Your task to perform on an android device: Clear the shopping cart on ebay.com. Add alienware area 51 to the cart on ebay.com, then select checkout. Image 0: 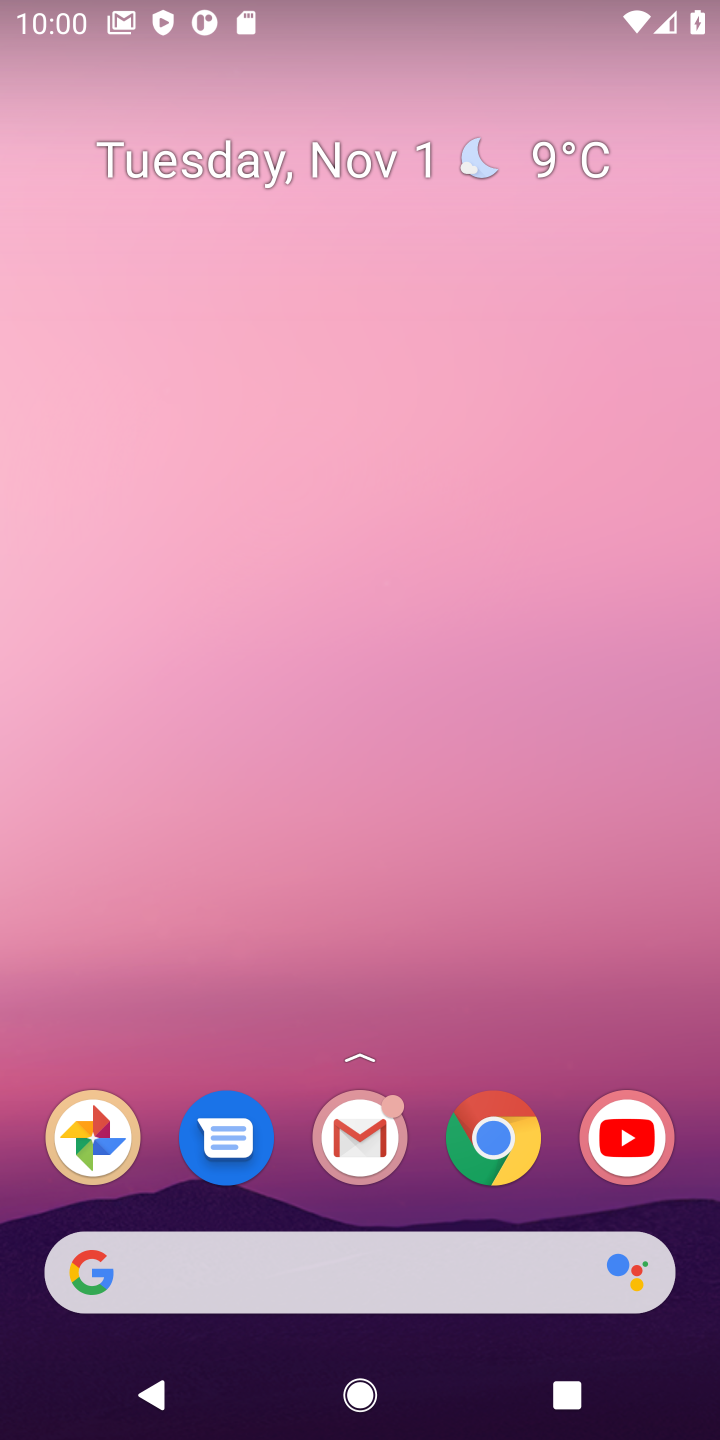
Step 0: click (496, 1143)
Your task to perform on an android device: Clear the shopping cart on ebay.com. Add alienware area 51 to the cart on ebay.com, then select checkout. Image 1: 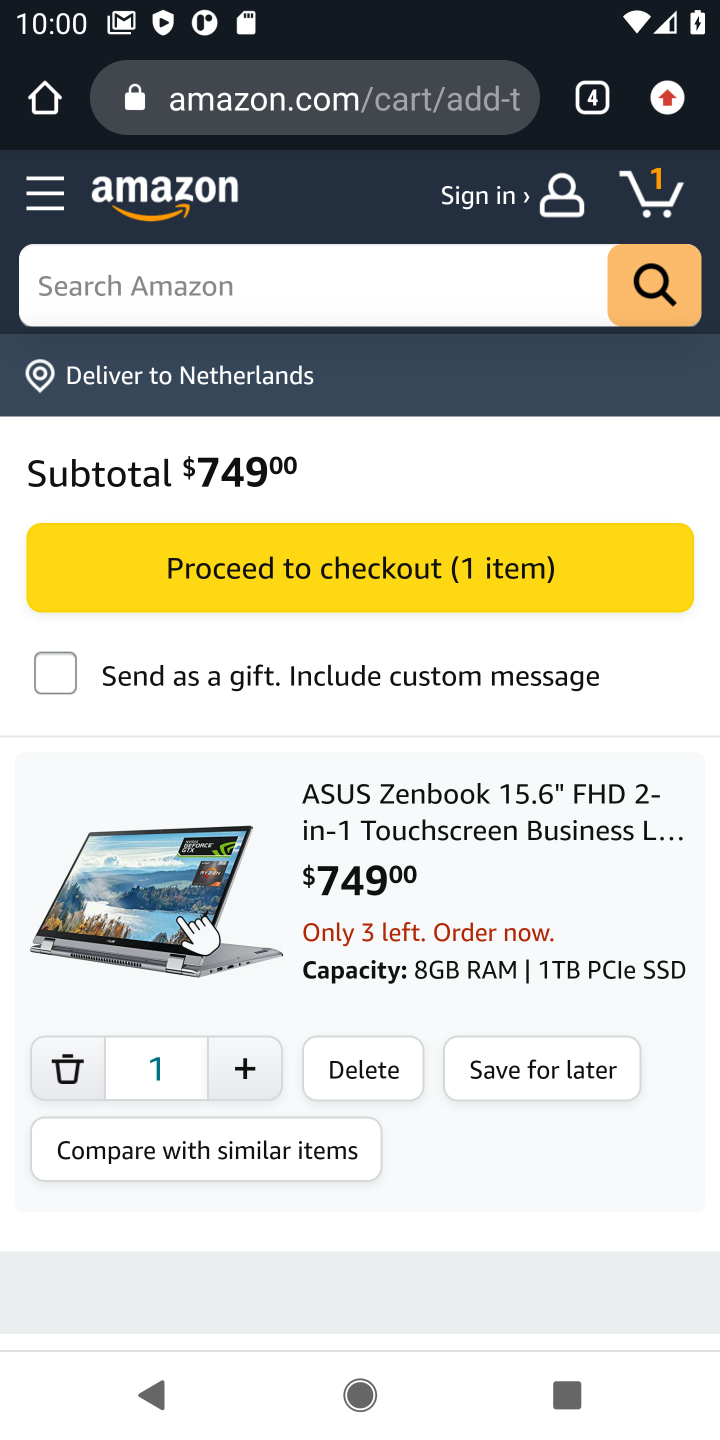
Step 1: click (336, 1071)
Your task to perform on an android device: Clear the shopping cart on ebay.com. Add alienware area 51 to the cart on ebay.com, then select checkout. Image 2: 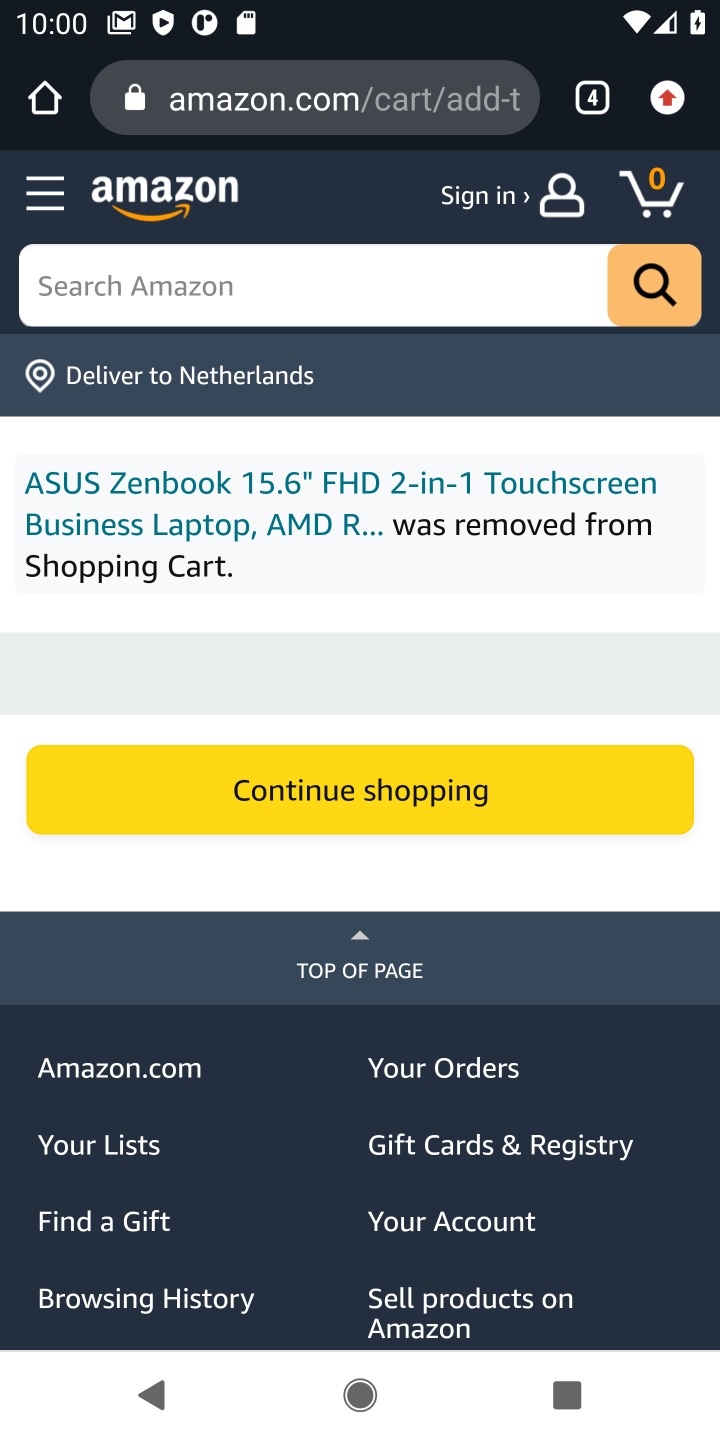
Step 2: click (382, 292)
Your task to perform on an android device: Clear the shopping cart on ebay.com. Add alienware area 51 to the cart on ebay.com, then select checkout. Image 3: 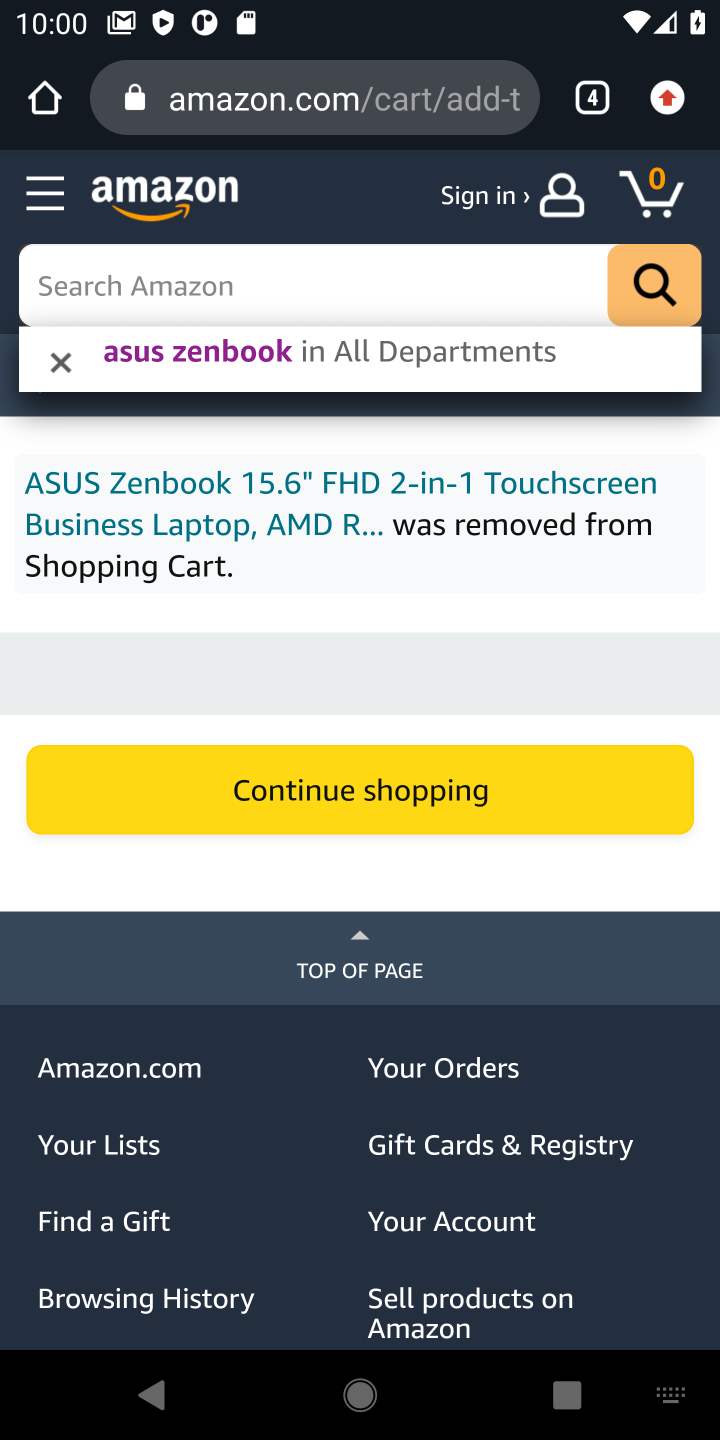
Step 3: type "alienware area 51"
Your task to perform on an android device: Clear the shopping cart on ebay.com. Add alienware area 51 to the cart on ebay.com, then select checkout. Image 4: 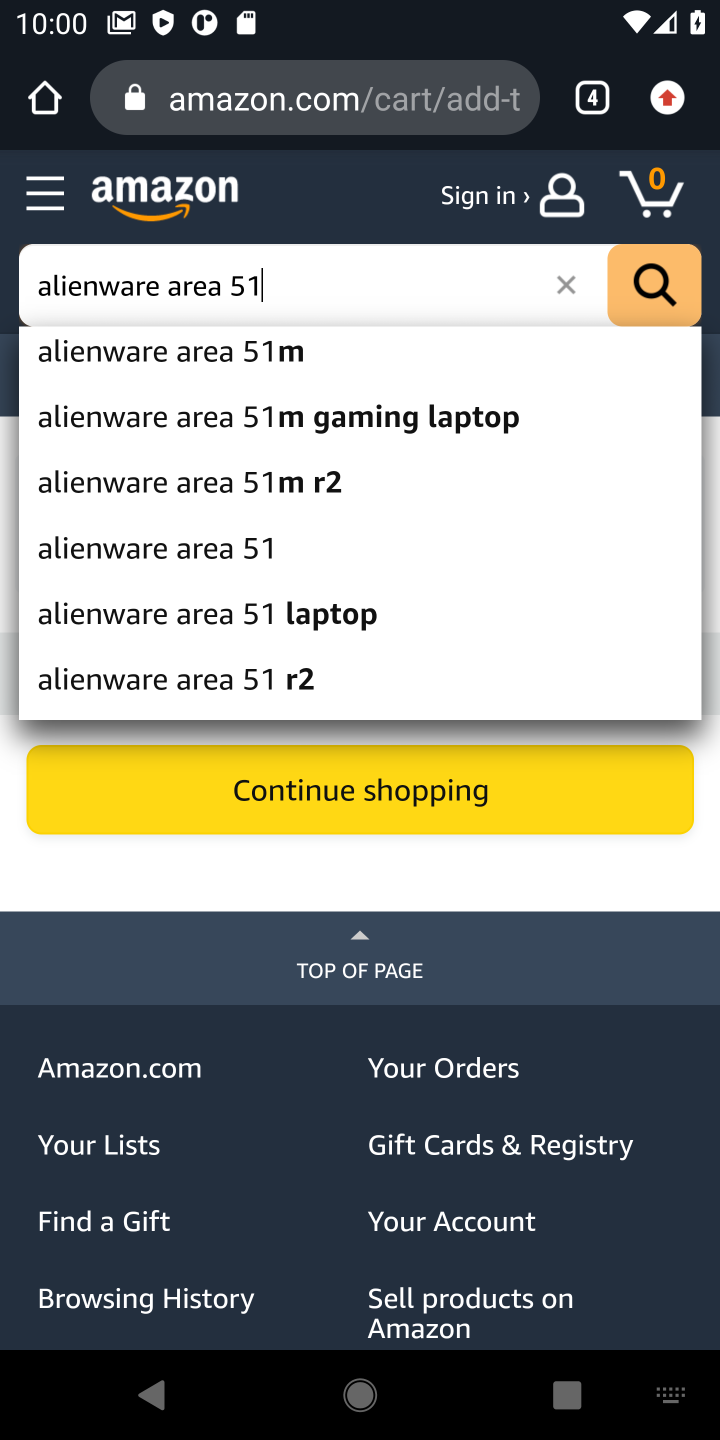
Step 4: click (249, 356)
Your task to perform on an android device: Clear the shopping cart on ebay.com. Add alienware area 51 to the cart on ebay.com, then select checkout. Image 5: 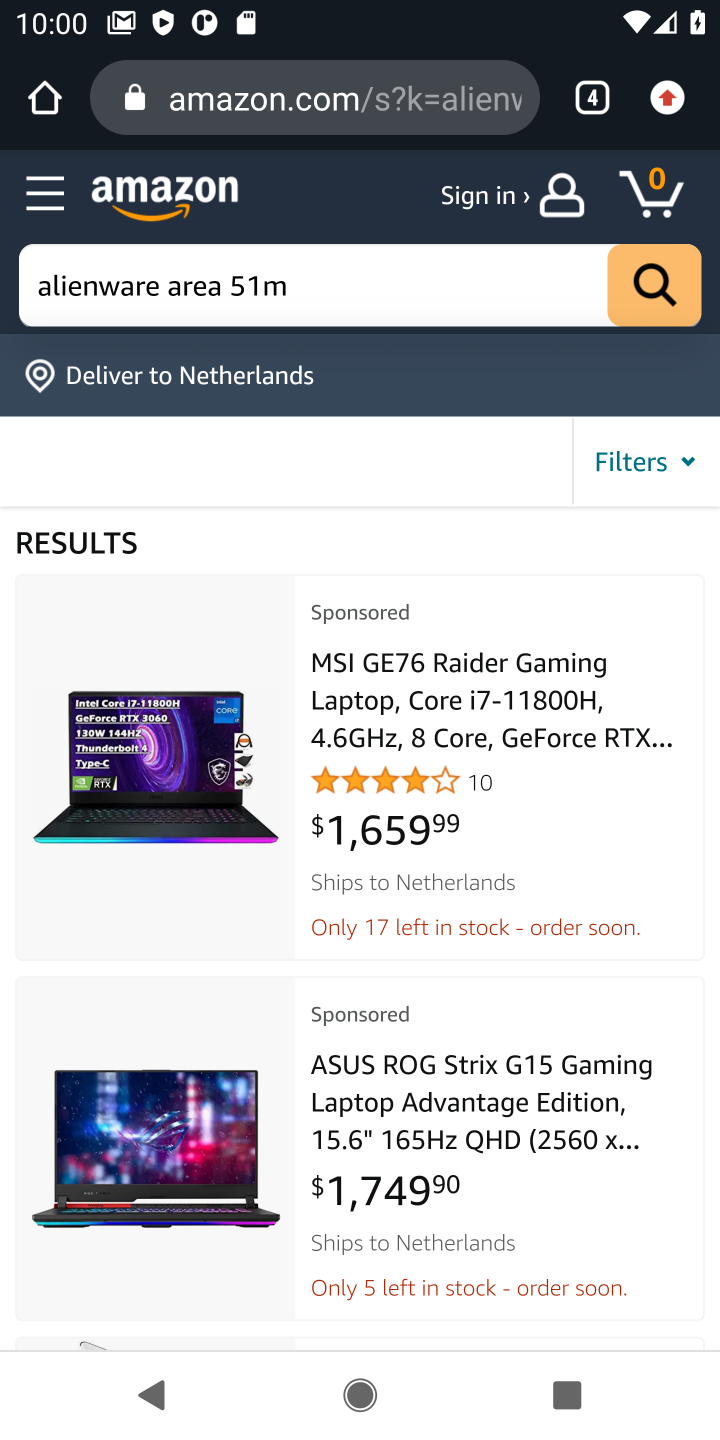
Step 5: click (425, 740)
Your task to perform on an android device: Clear the shopping cart on ebay.com. Add alienware area 51 to the cart on ebay.com, then select checkout. Image 6: 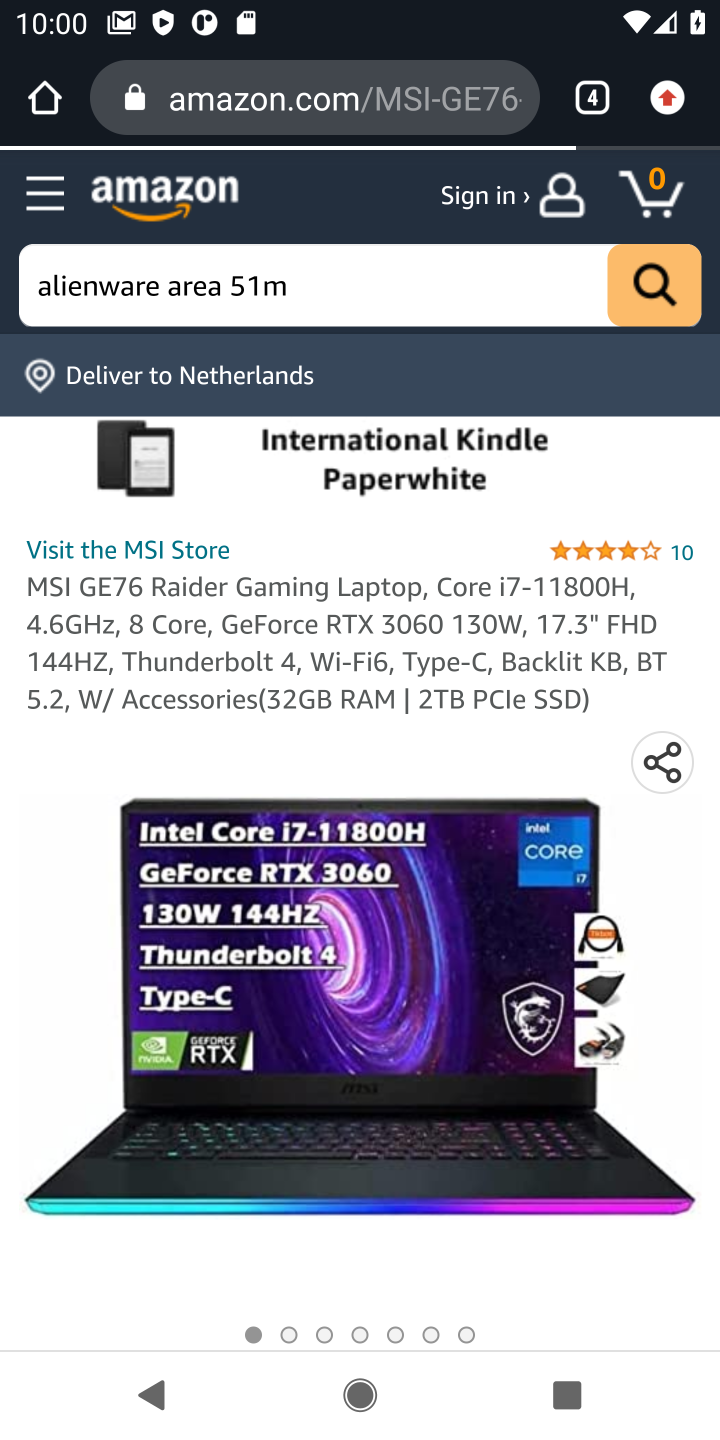
Step 6: drag from (486, 1201) to (587, 540)
Your task to perform on an android device: Clear the shopping cart on ebay.com. Add alienware area 51 to the cart on ebay.com, then select checkout. Image 7: 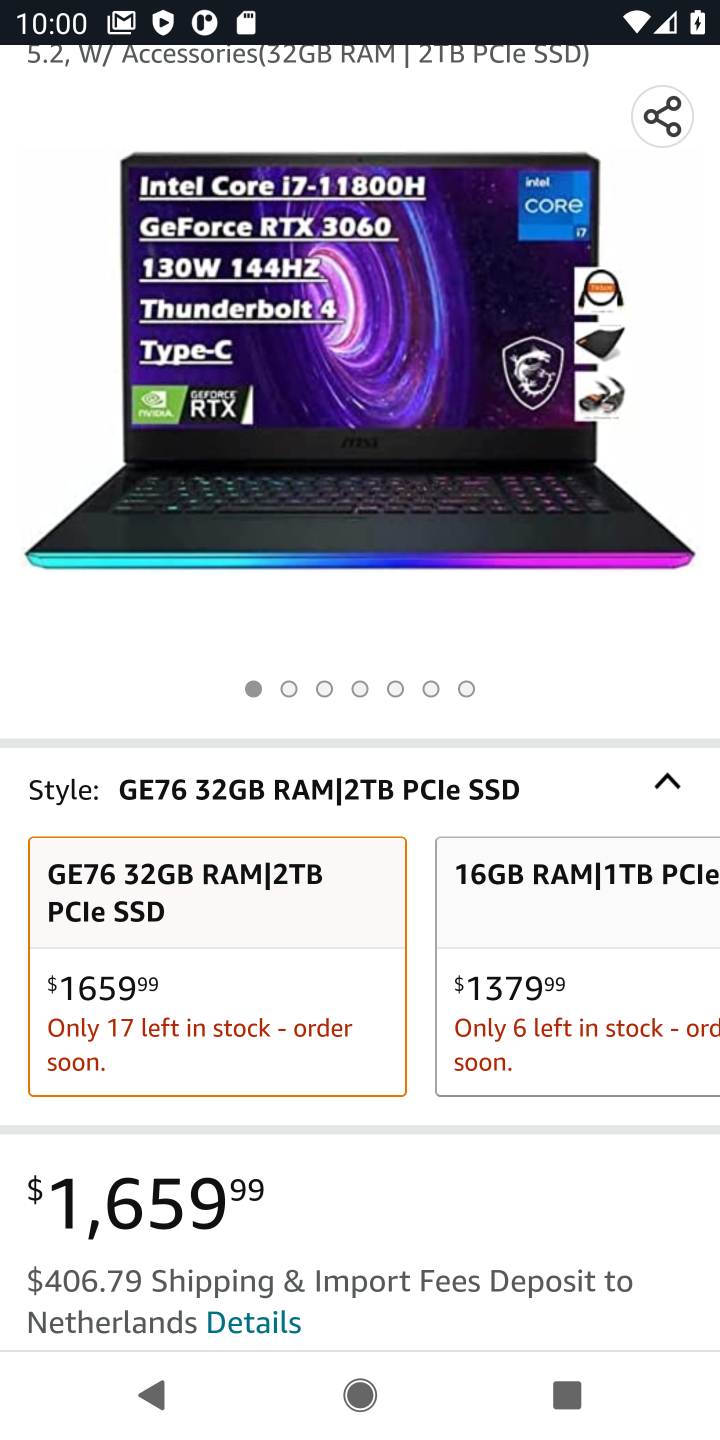
Step 7: drag from (406, 1156) to (481, 398)
Your task to perform on an android device: Clear the shopping cart on ebay.com. Add alienware area 51 to the cart on ebay.com, then select checkout. Image 8: 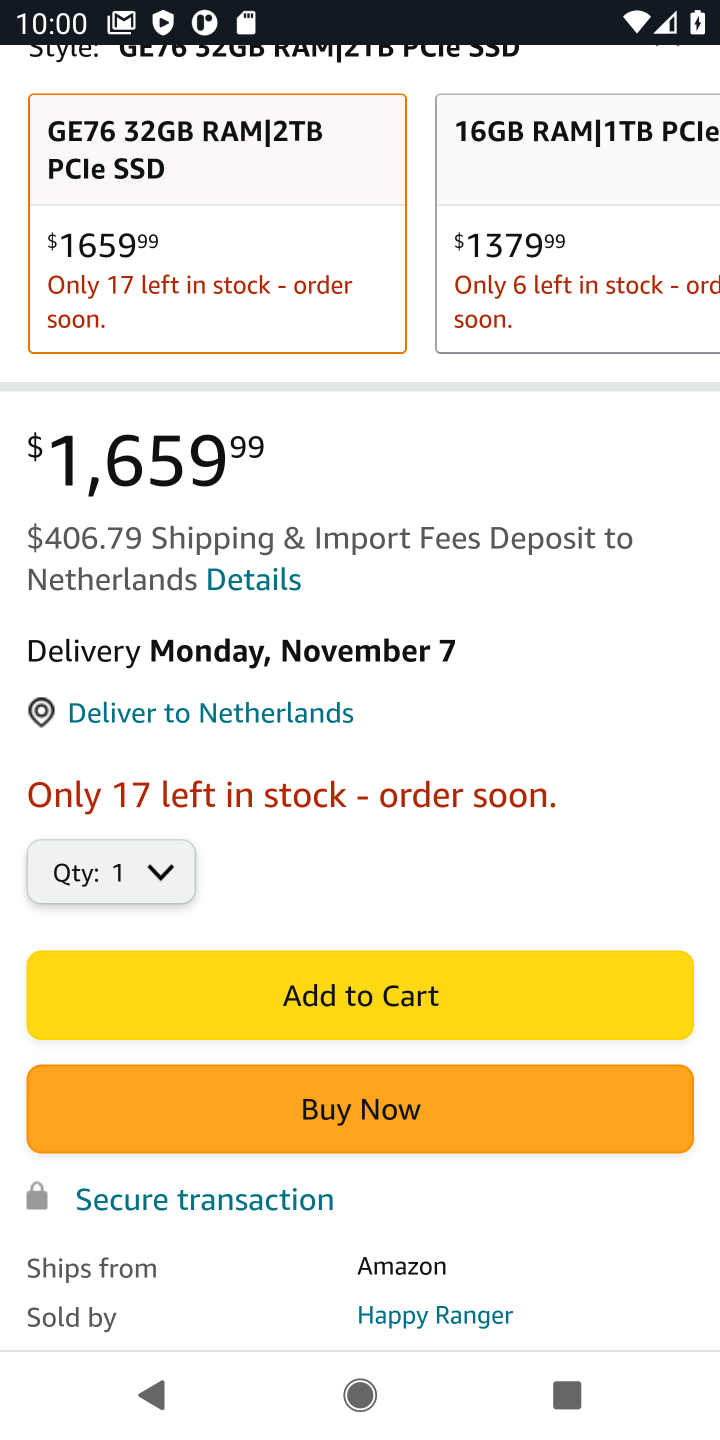
Step 8: click (350, 982)
Your task to perform on an android device: Clear the shopping cart on ebay.com. Add alienware area 51 to the cart on ebay.com, then select checkout. Image 9: 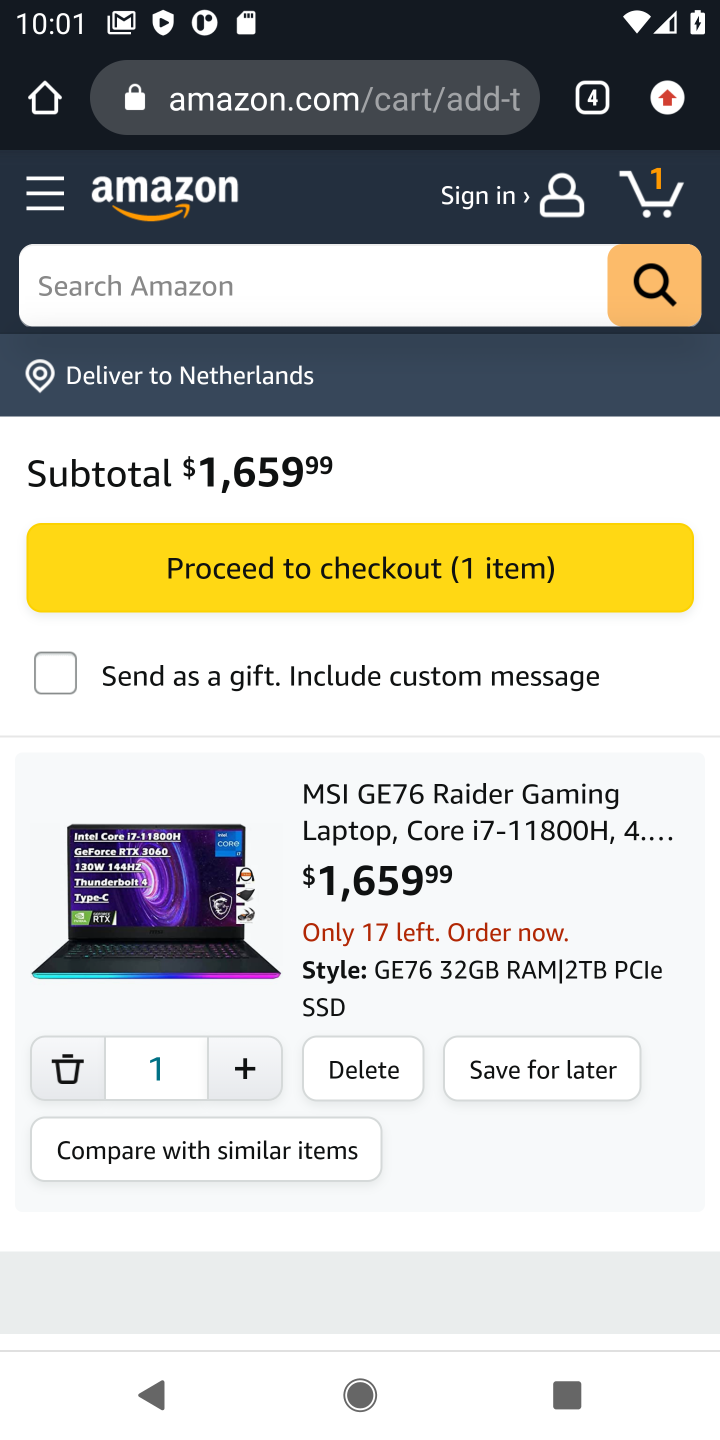
Step 9: click (462, 567)
Your task to perform on an android device: Clear the shopping cart on ebay.com. Add alienware area 51 to the cart on ebay.com, then select checkout. Image 10: 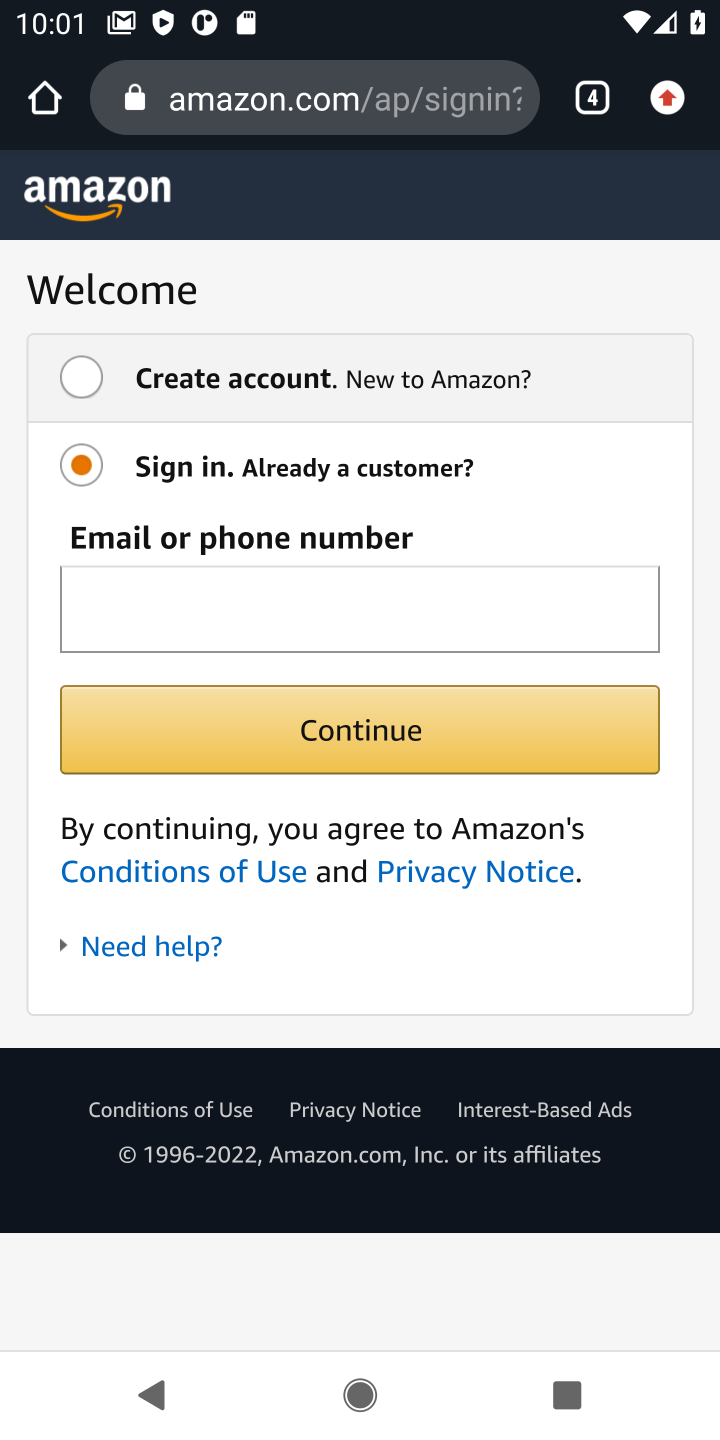
Step 10: task complete